Your task to perform on an android device: clear all cookies in the chrome app Image 0: 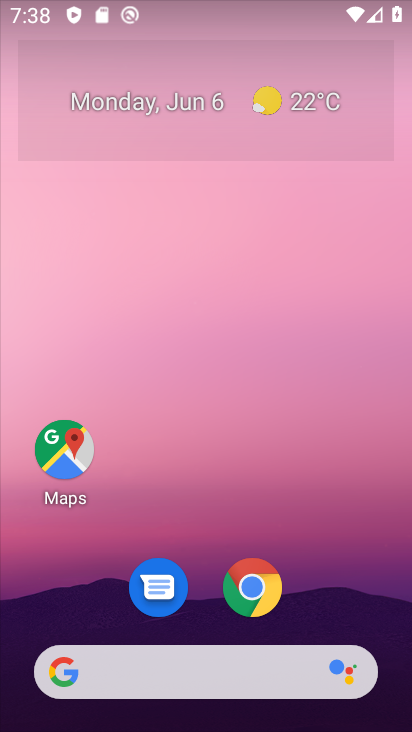
Step 0: click (257, 588)
Your task to perform on an android device: clear all cookies in the chrome app Image 1: 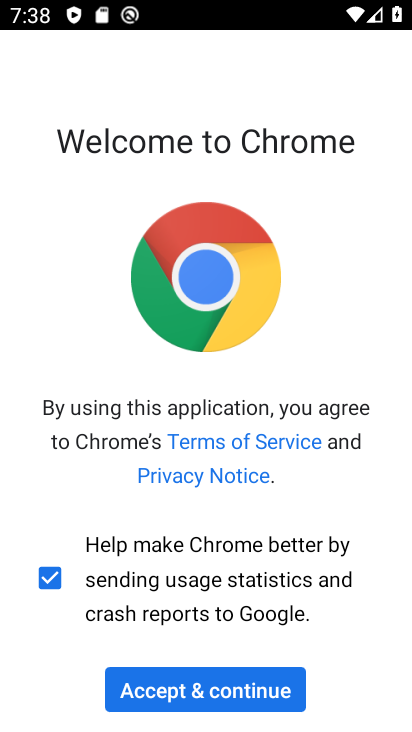
Step 1: click (216, 686)
Your task to perform on an android device: clear all cookies in the chrome app Image 2: 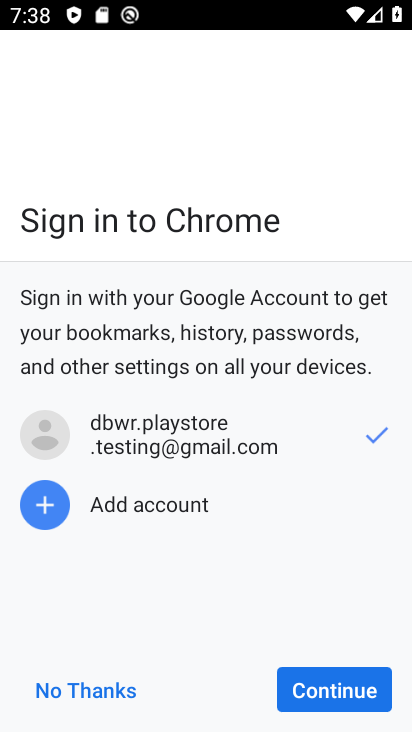
Step 2: click (326, 684)
Your task to perform on an android device: clear all cookies in the chrome app Image 3: 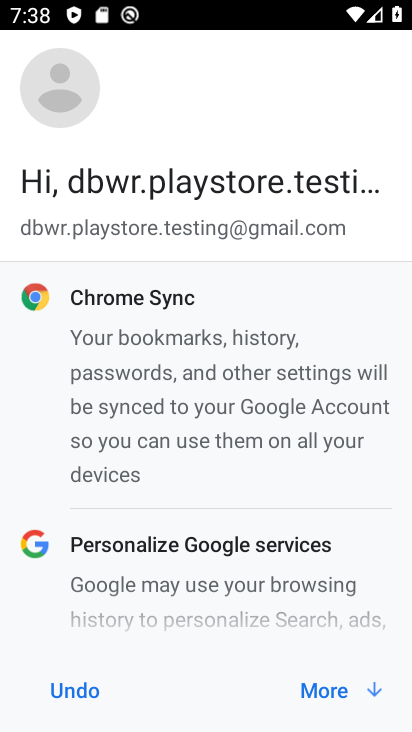
Step 3: click (326, 684)
Your task to perform on an android device: clear all cookies in the chrome app Image 4: 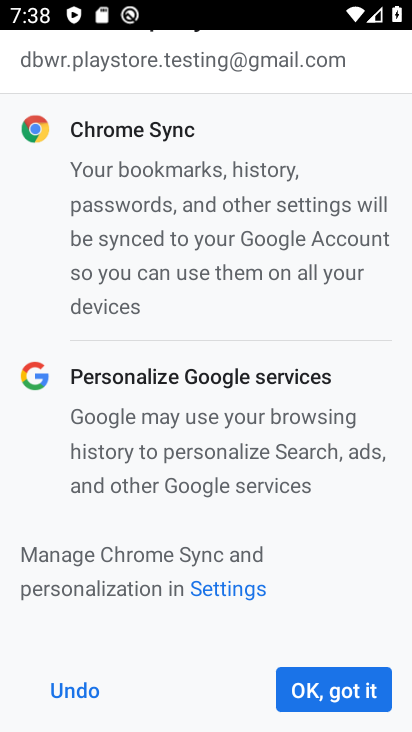
Step 4: click (326, 684)
Your task to perform on an android device: clear all cookies in the chrome app Image 5: 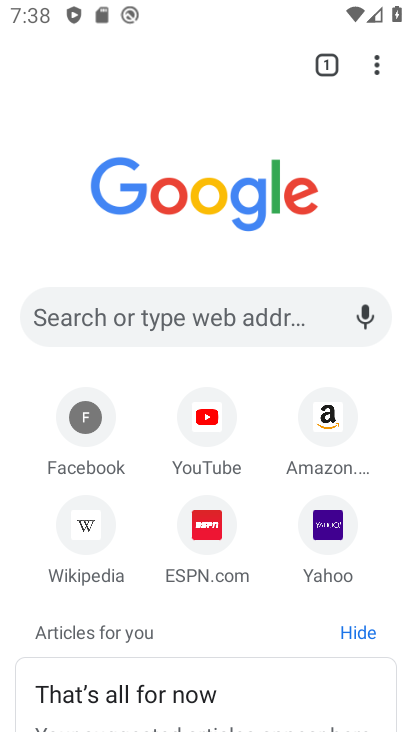
Step 5: click (371, 68)
Your task to perform on an android device: clear all cookies in the chrome app Image 6: 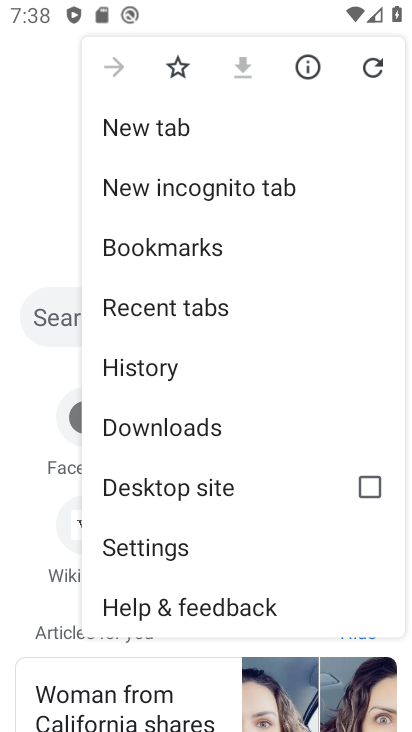
Step 6: click (156, 551)
Your task to perform on an android device: clear all cookies in the chrome app Image 7: 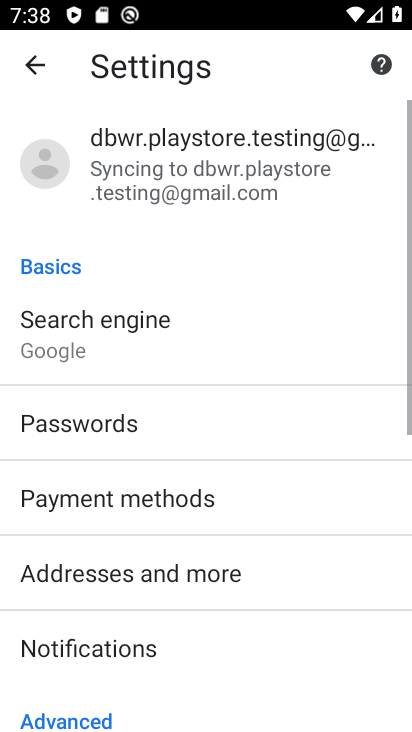
Step 7: drag from (173, 537) to (200, 38)
Your task to perform on an android device: clear all cookies in the chrome app Image 8: 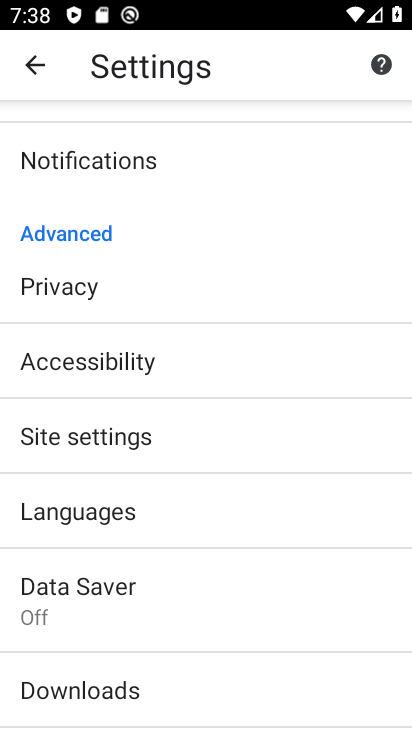
Step 8: click (73, 450)
Your task to perform on an android device: clear all cookies in the chrome app Image 9: 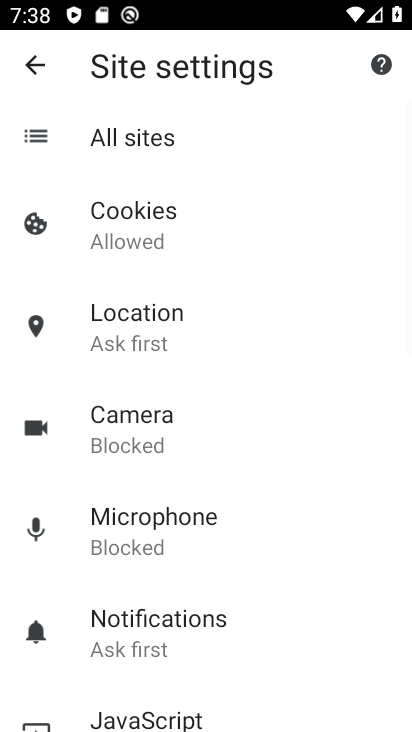
Step 9: click (126, 242)
Your task to perform on an android device: clear all cookies in the chrome app Image 10: 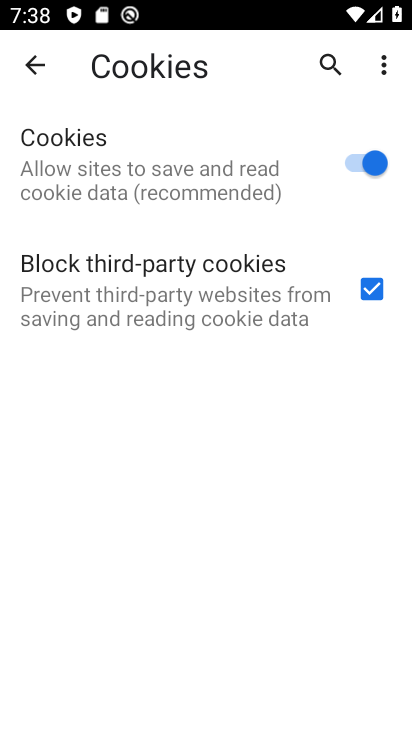
Step 10: task complete